Your task to perform on an android device: What is the capital of Italy? Image 0: 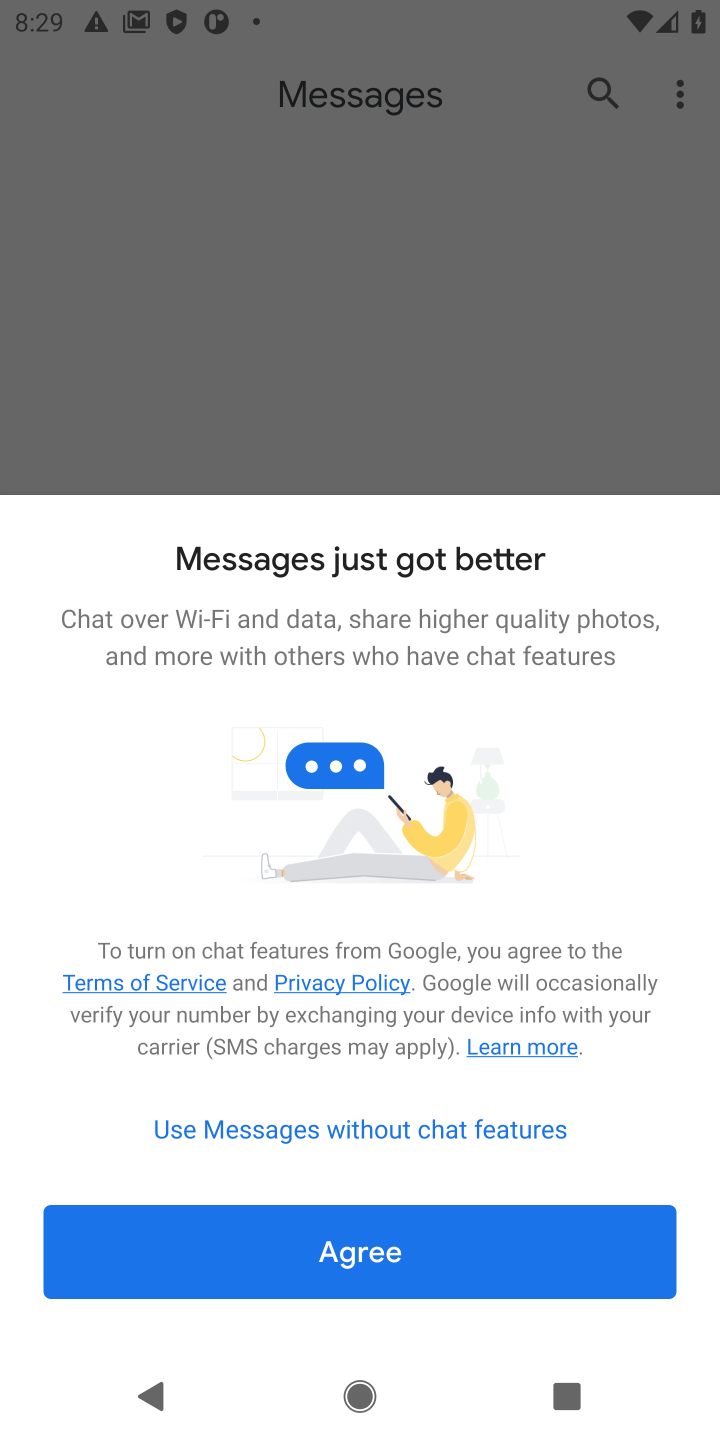
Step 0: press home button
Your task to perform on an android device: What is the capital of Italy? Image 1: 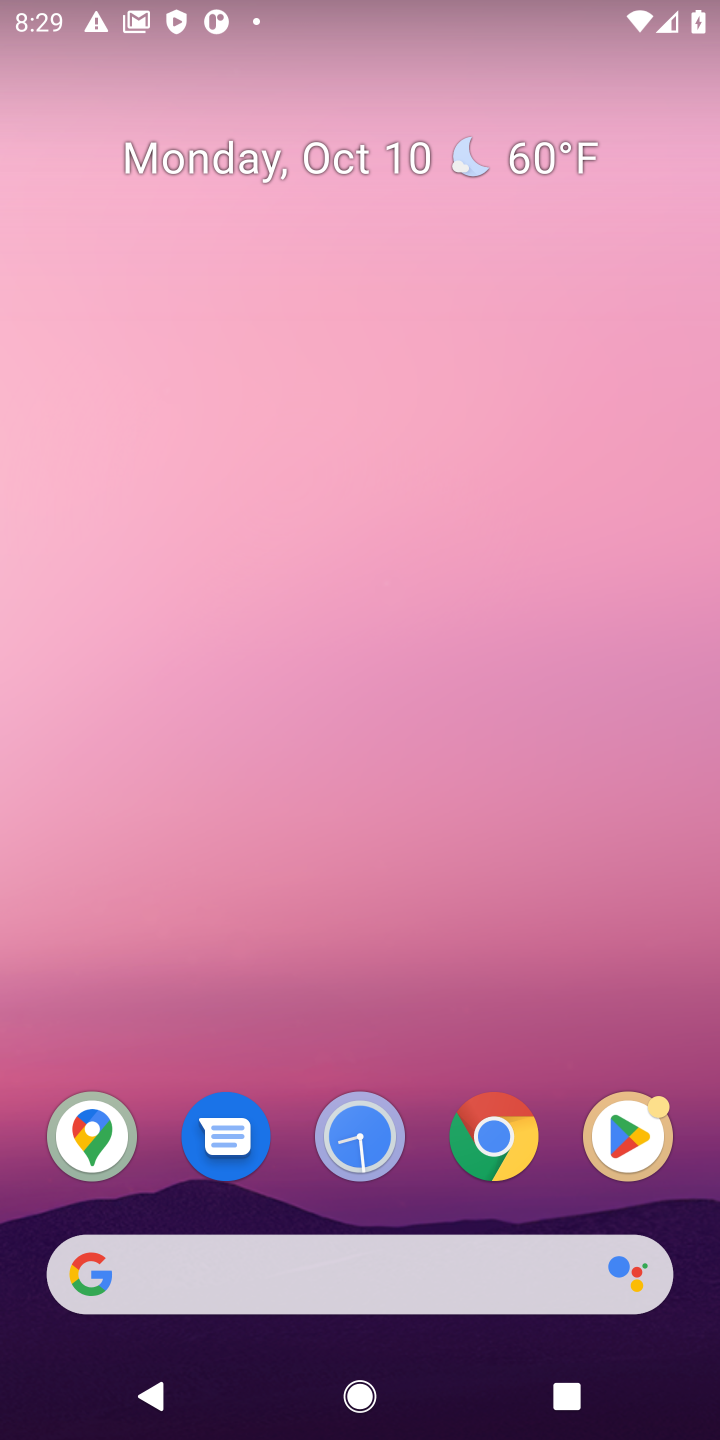
Step 1: click (299, 1266)
Your task to perform on an android device: What is the capital of Italy? Image 2: 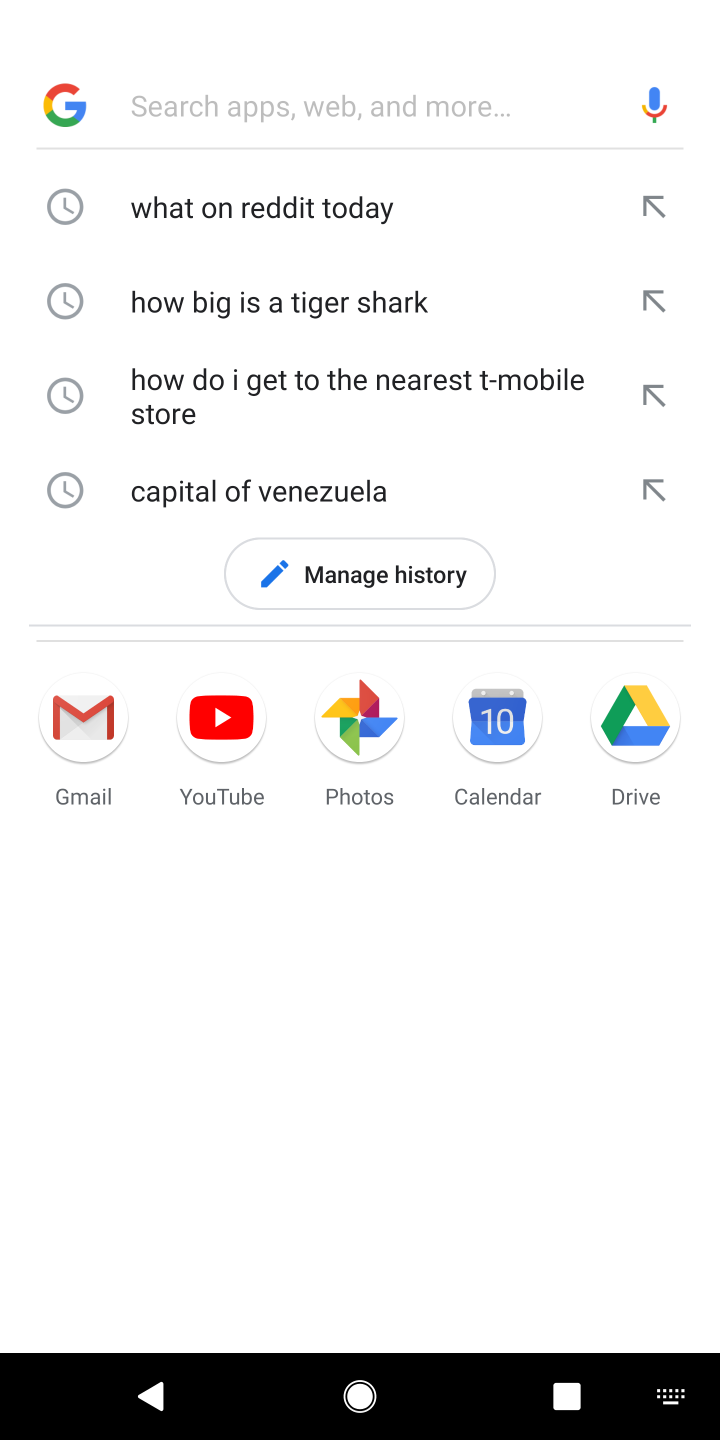
Step 2: type "What is the capital of Italy?"
Your task to perform on an android device: What is the capital of Italy? Image 3: 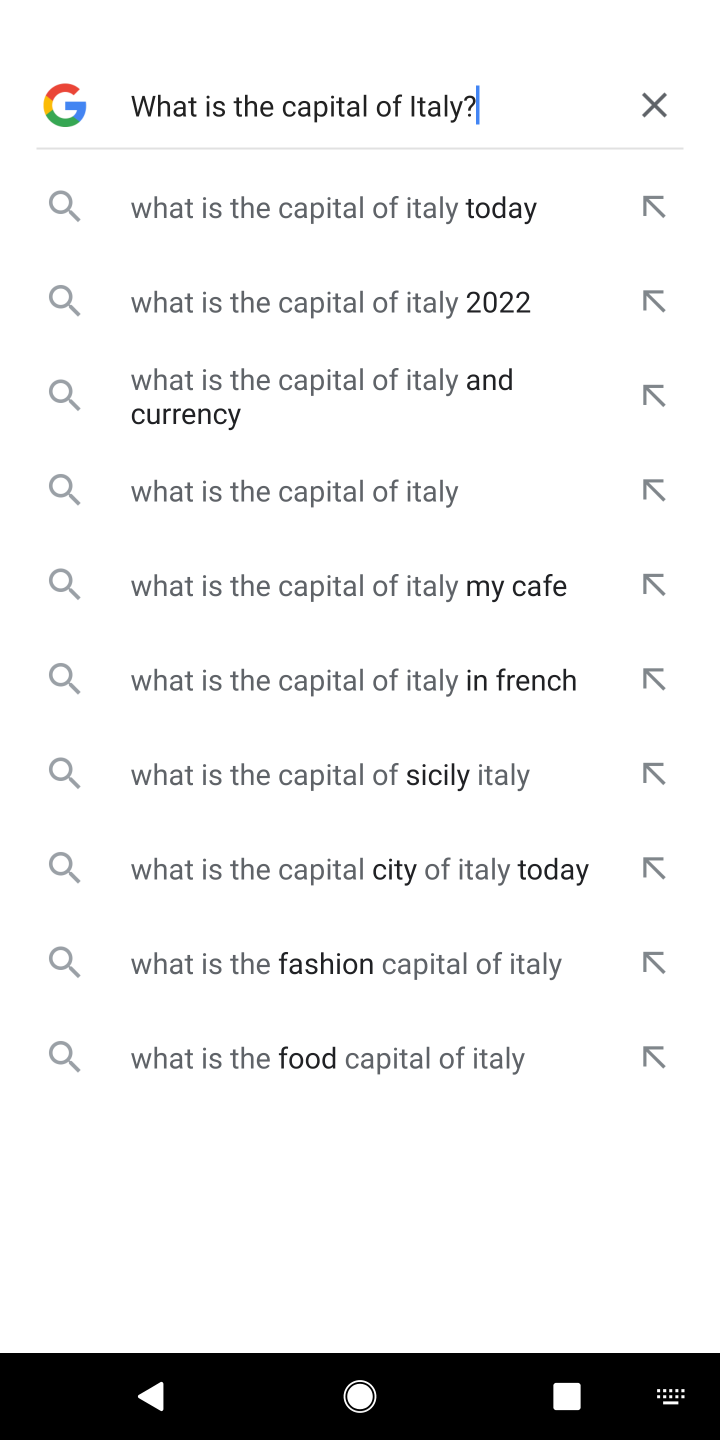
Step 3: click (293, 207)
Your task to perform on an android device: What is the capital of Italy? Image 4: 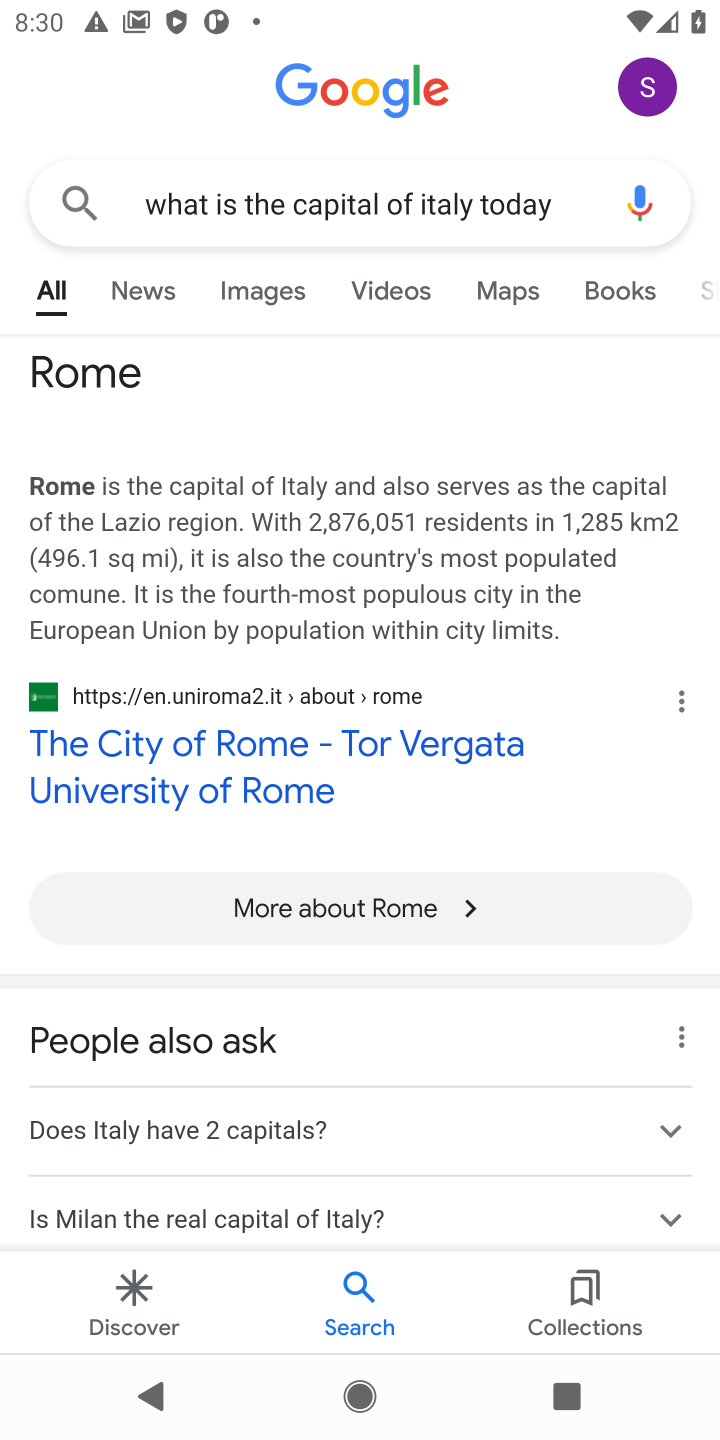
Step 4: task complete